Your task to perform on an android device: turn on translation in the chrome app Image 0: 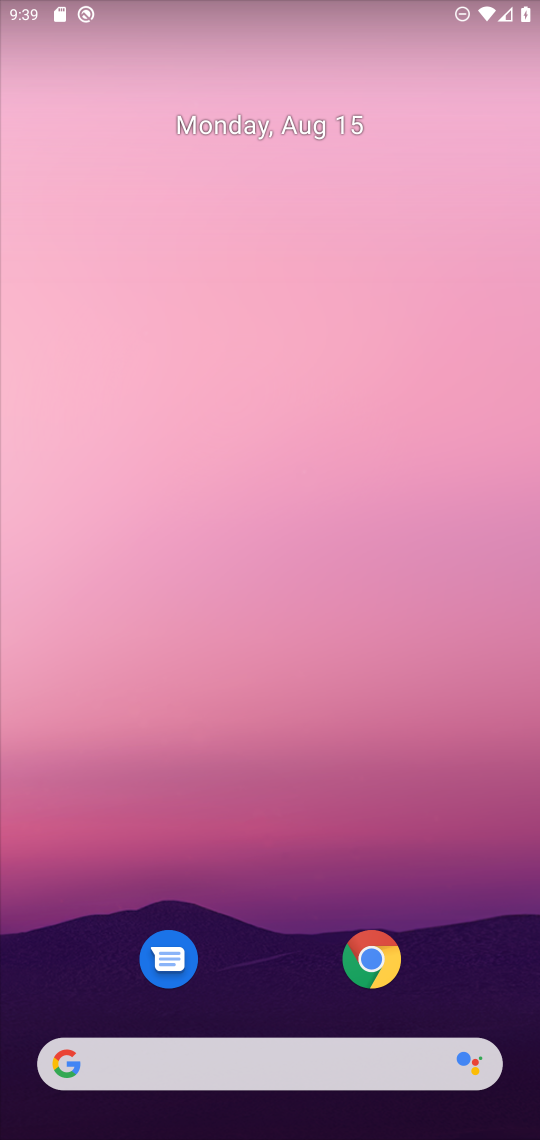
Step 0: click (363, 956)
Your task to perform on an android device: turn on translation in the chrome app Image 1: 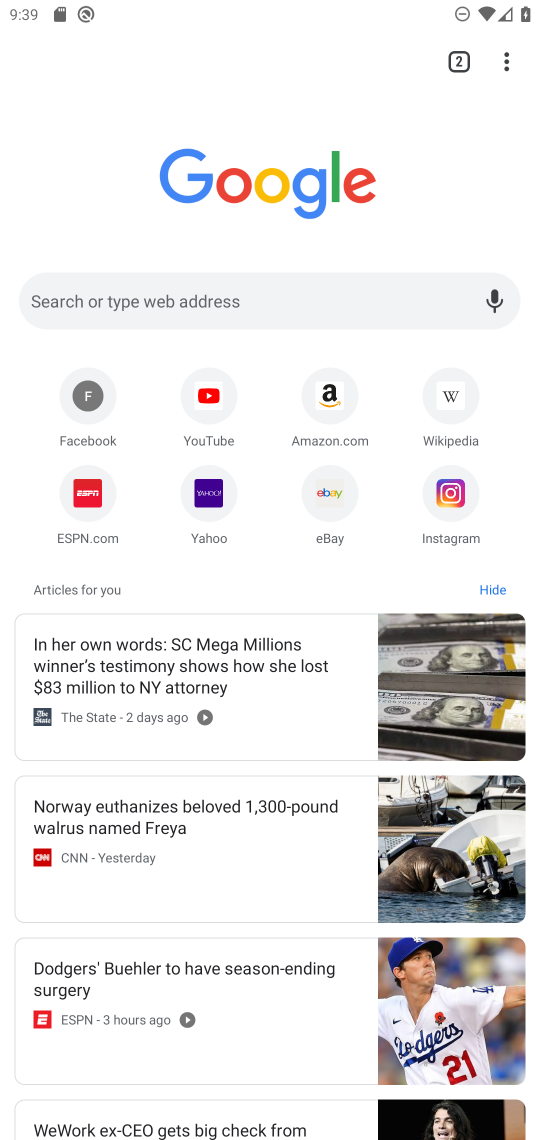
Step 1: click (503, 69)
Your task to perform on an android device: turn on translation in the chrome app Image 2: 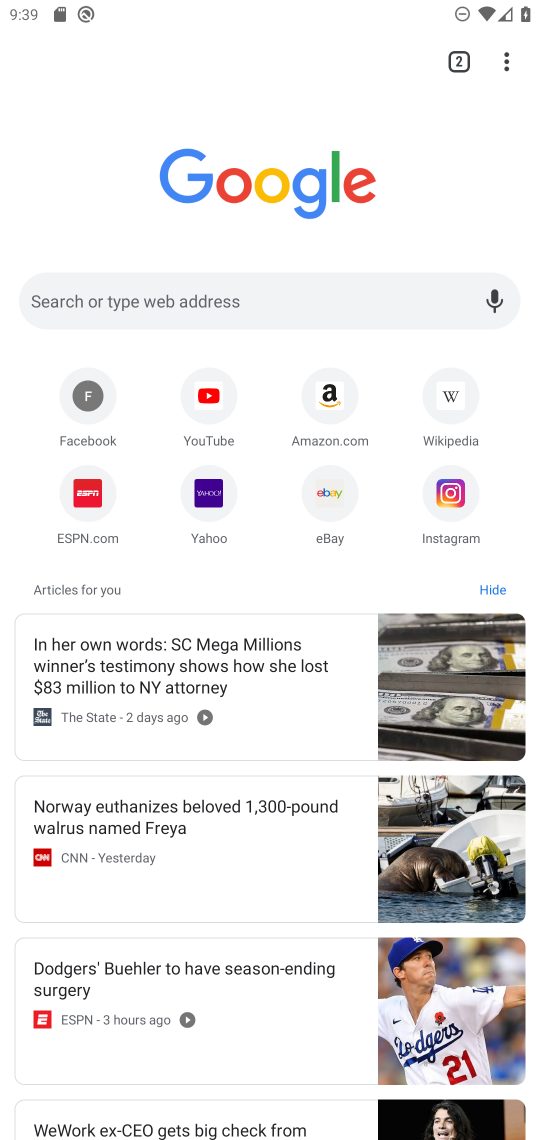
Step 2: drag from (504, 58) to (268, 524)
Your task to perform on an android device: turn on translation in the chrome app Image 3: 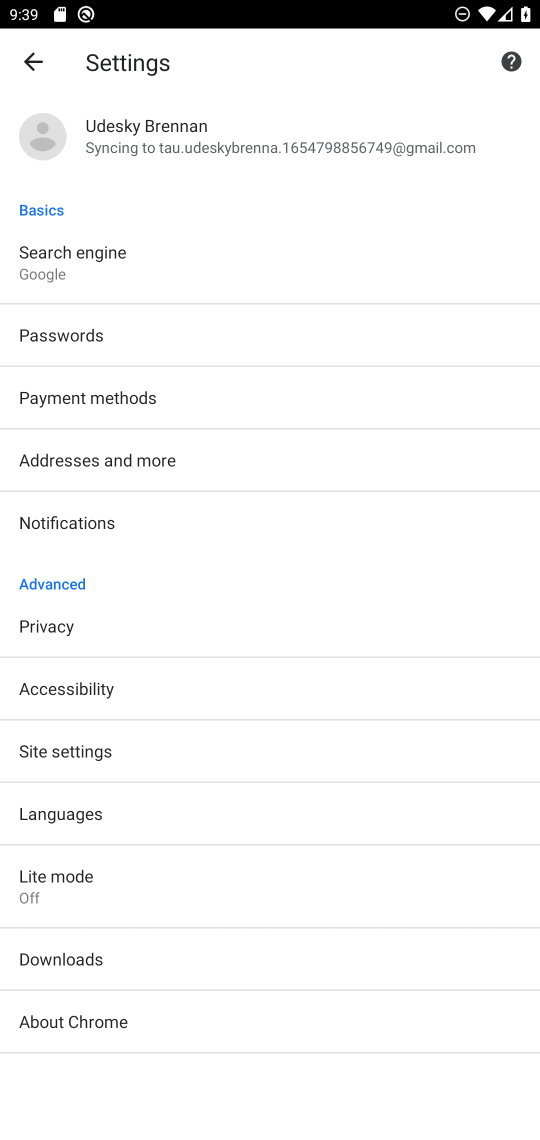
Step 3: click (98, 818)
Your task to perform on an android device: turn on translation in the chrome app Image 4: 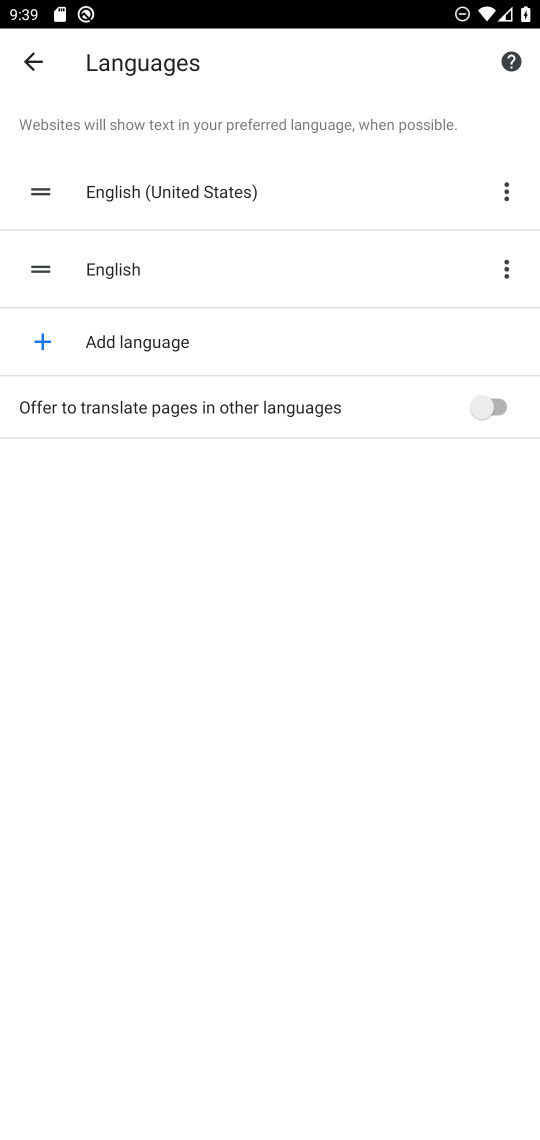
Step 4: click (487, 415)
Your task to perform on an android device: turn on translation in the chrome app Image 5: 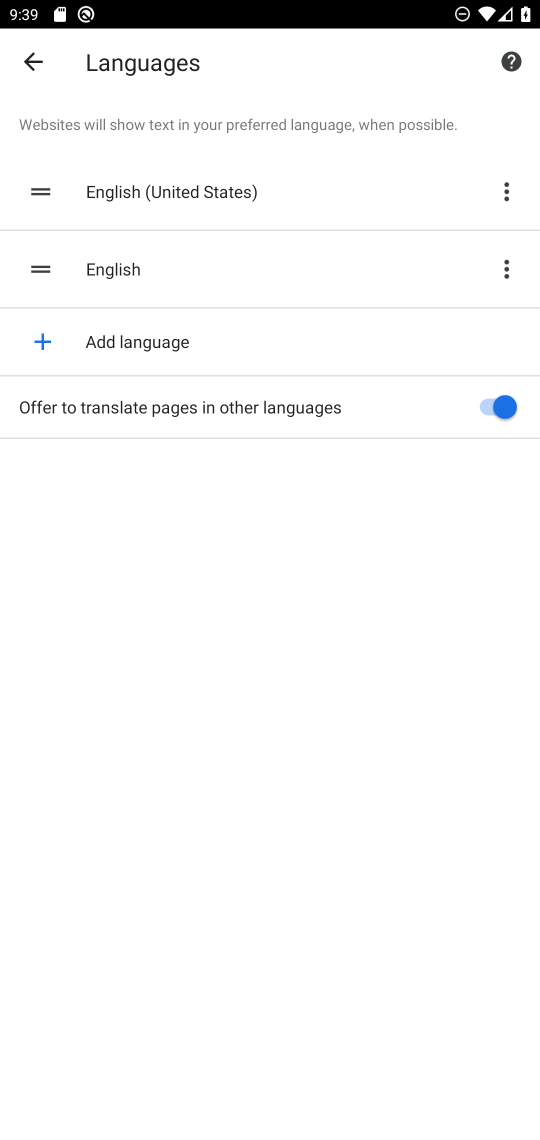
Step 5: task complete